Your task to perform on an android device: Open Maps and search for coffee Image 0: 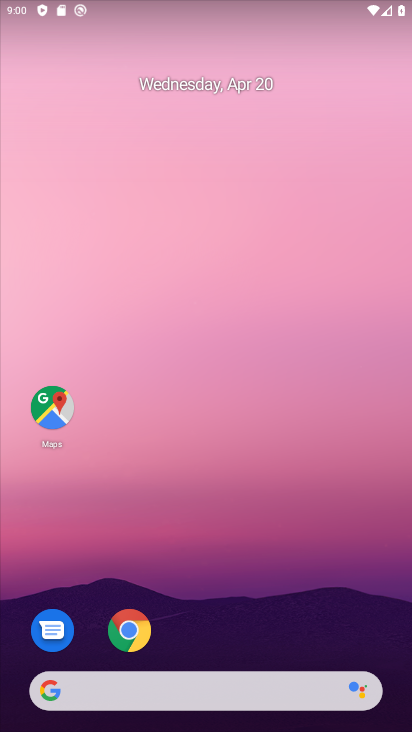
Step 0: click (61, 403)
Your task to perform on an android device: Open Maps and search for coffee Image 1: 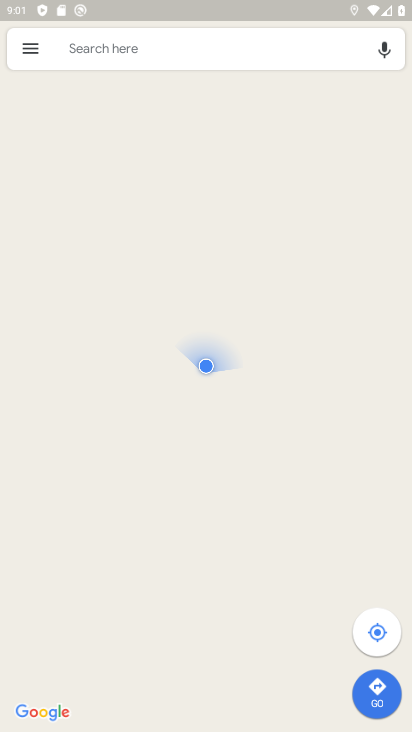
Step 1: click (250, 48)
Your task to perform on an android device: Open Maps and search for coffee Image 2: 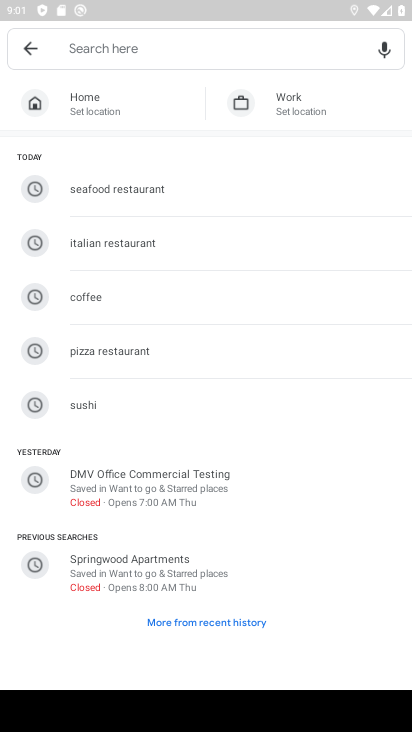
Step 2: click (250, 48)
Your task to perform on an android device: Open Maps and search for coffee Image 3: 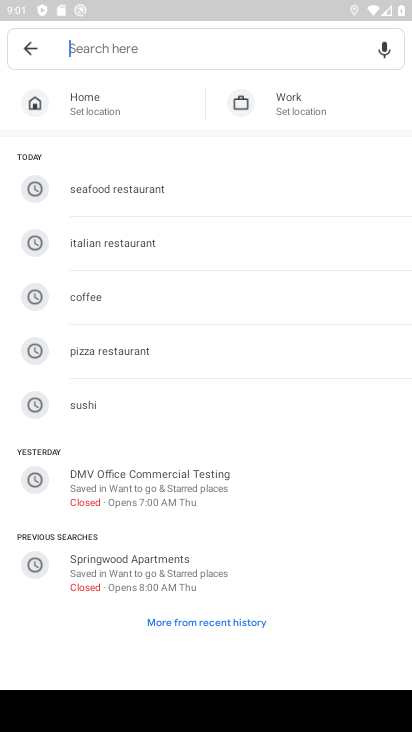
Step 3: click (128, 41)
Your task to perform on an android device: Open Maps and search for coffee Image 4: 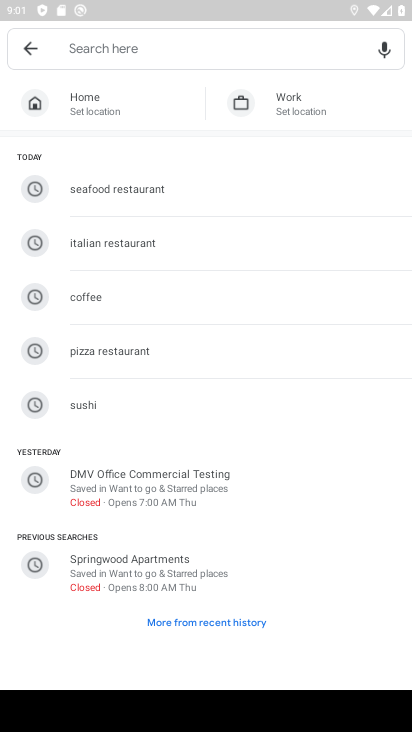
Step 4: type "coffee"
Your task to perform on an android device: Open Maps and search for coffee Image 5: 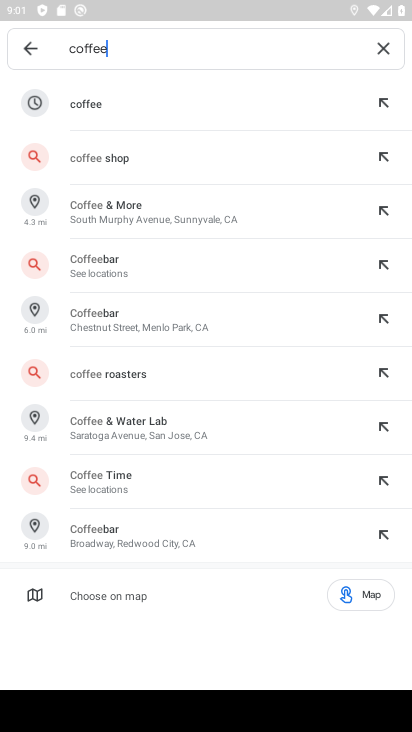
Step 5: click (203, 97)
Your task to perform on an android device: Open Maps and search for coffee Image 6: 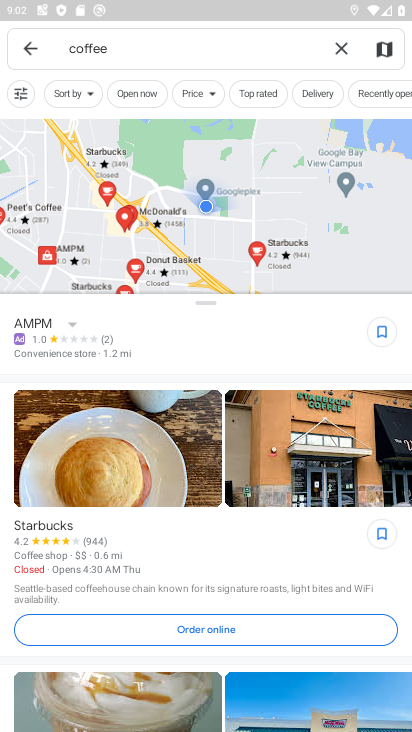
Step 6: task complete